Your task to perform on an android device: Go to Google maps Image 0: 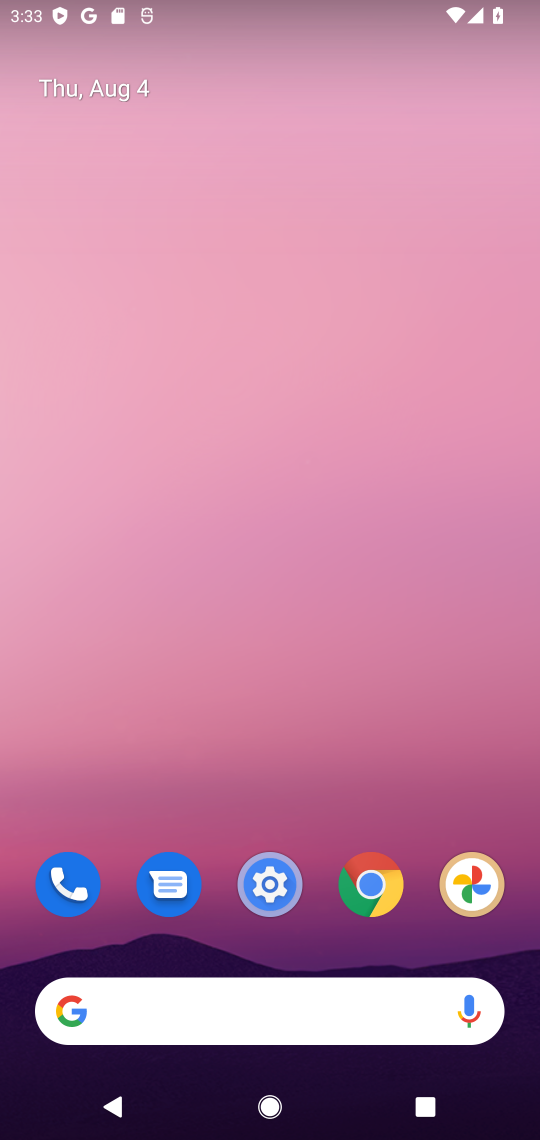
Step 0: drag from (242, 895) to (244, 118)
Your task to perform on an android device: Go to Google maps Image 1: 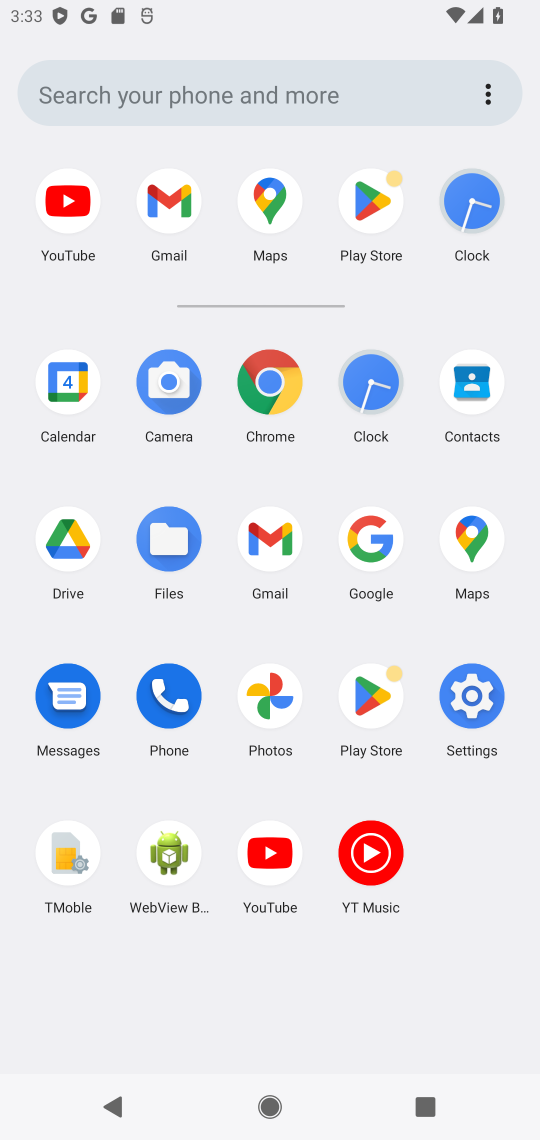
Step 1: click (459, 541)
Your task to perform on an android device: Go to Google maps Image 2: 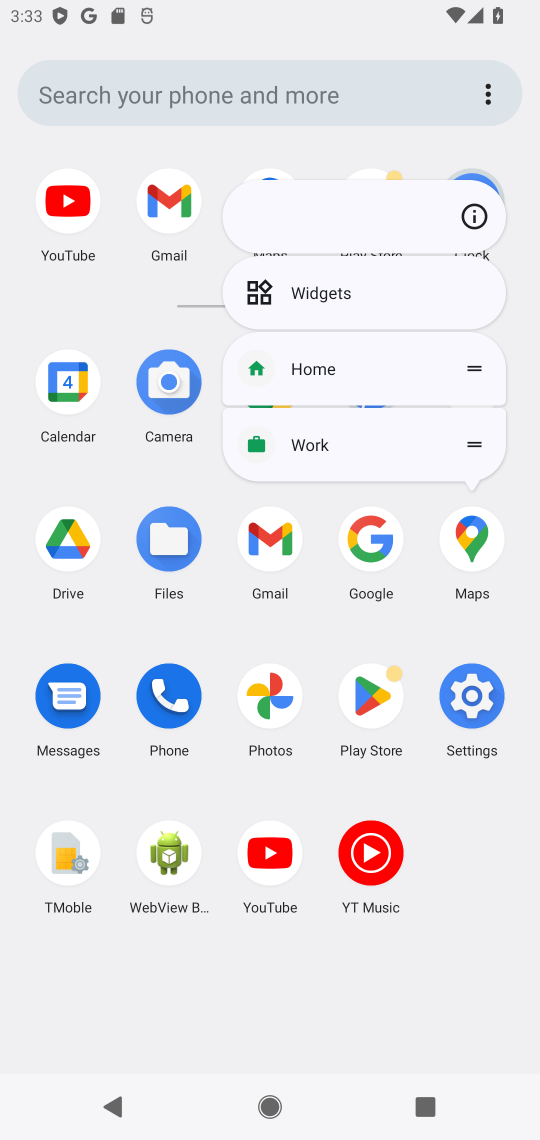
Step 2: click (473, 205)
Your task to perform on an android device: Go to Google maps Image 3: 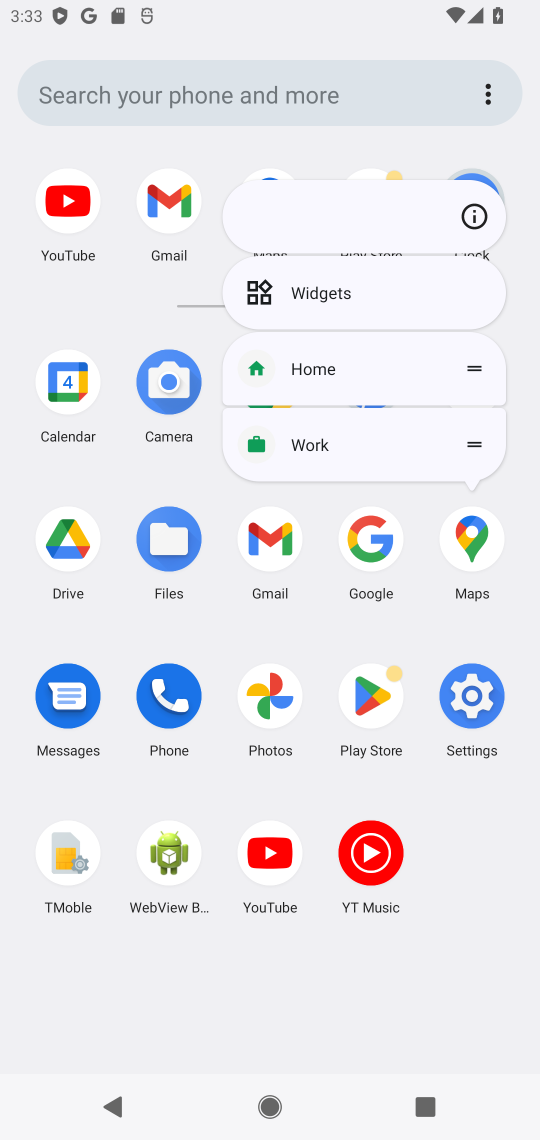
Step 3: click (473, 211)
Your task to perform on an android device: Go to Google maps Image 4: 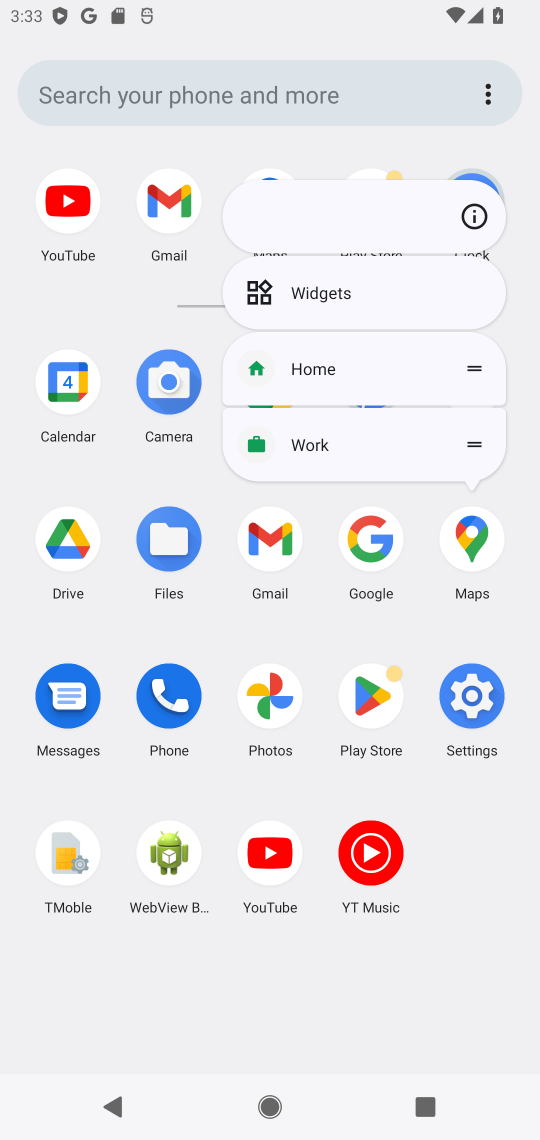
Step 4: click (466, 200)
Your task to perform on an android device: Go to Google maps Image 5: 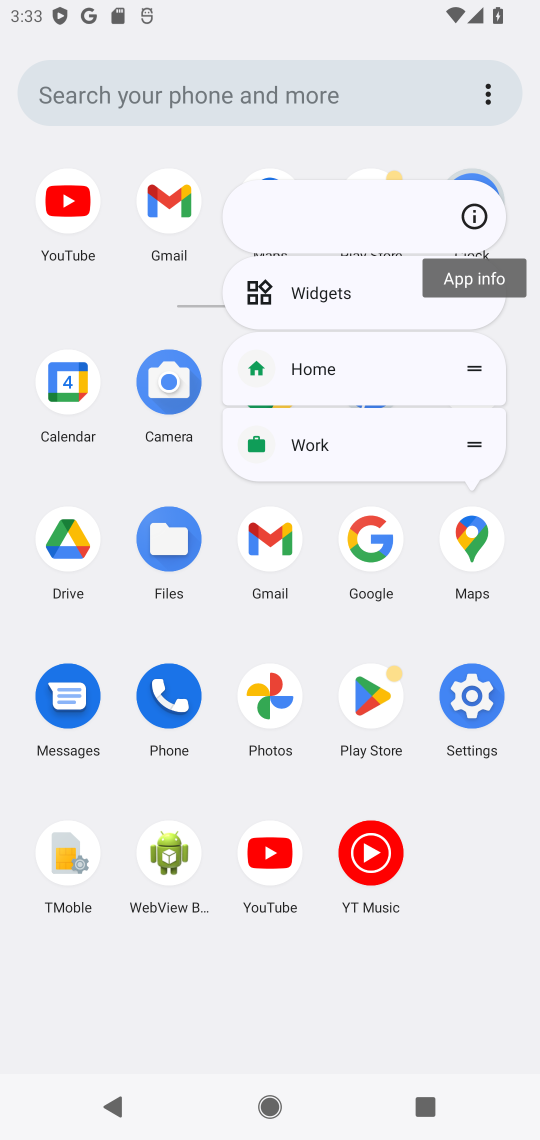
Step 5: click (471, 204)
Your task to perform on an android device: Go to Google maps Image 6: 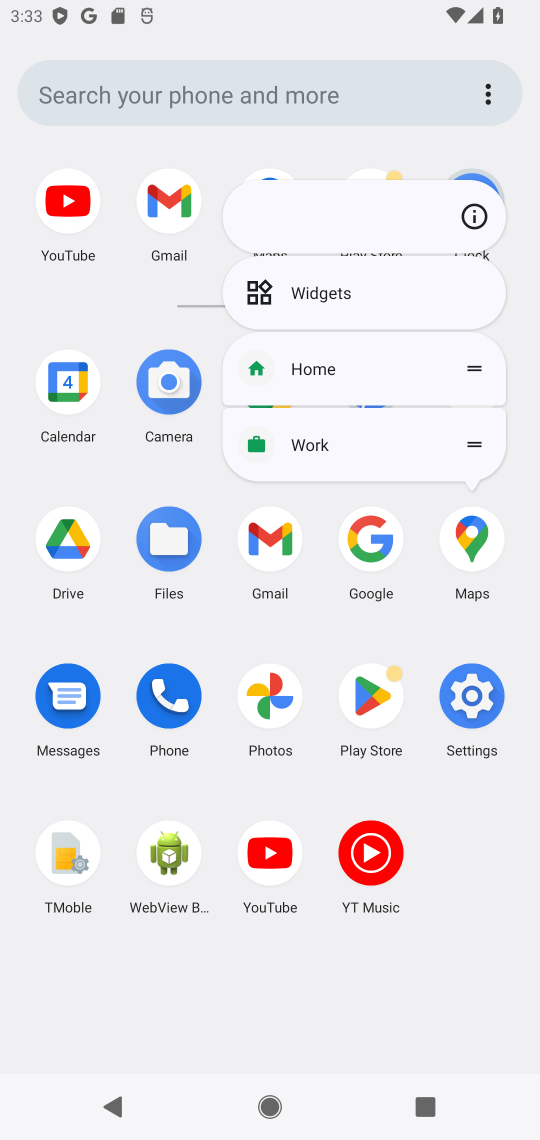
Step 6: click (471, 224)
Your task to perform on an android device: Go to Google maps Image 7: 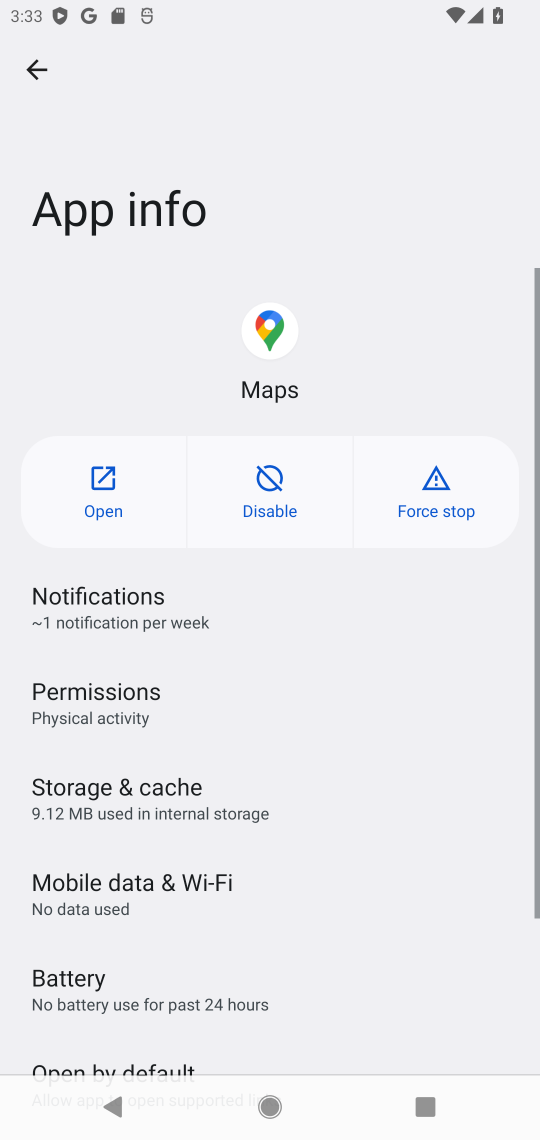
Step 7: click (66, 512)
Your task to perform on an android device: Go to Google maps Image 8: 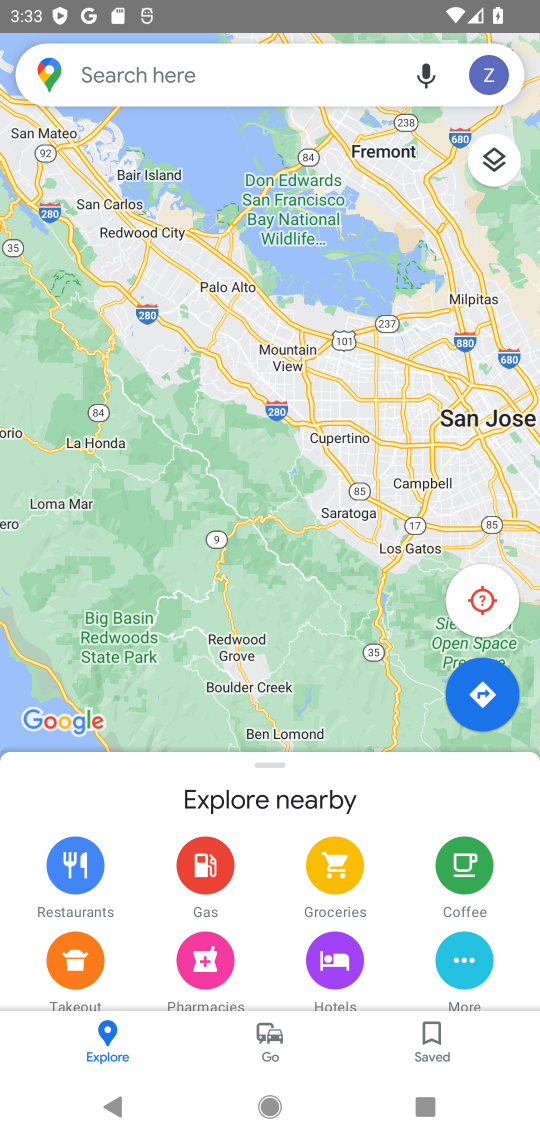
Step 8: task complete